Your task to perform on an android device: See recent photos Image 0: 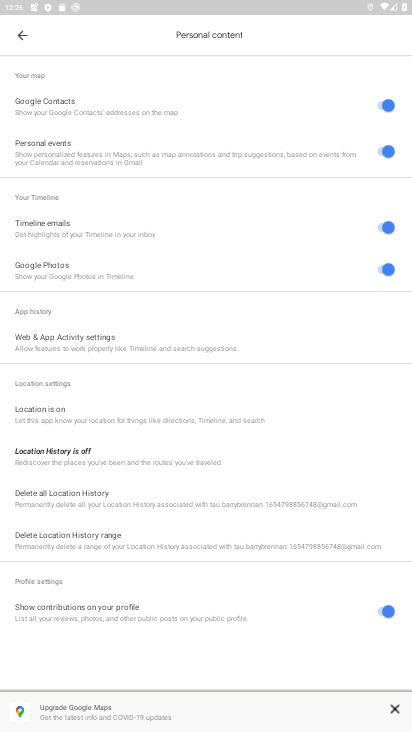
Step 0: press home button
Your task to perform on an android device: See recent photos Image 1: 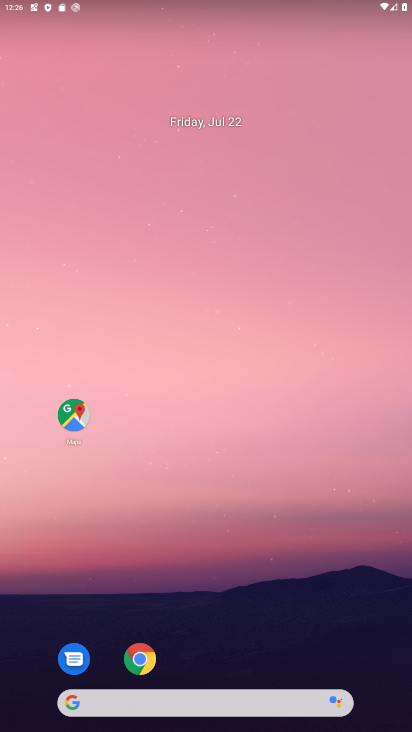
Step 1: drag from (176, 431) to (176, 301)
Your task to perform on an android device: See recent photos Image 2: 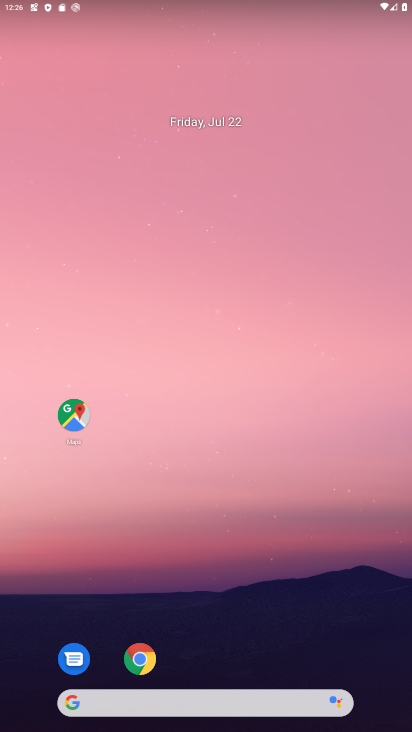
Step 2: drag from (198, 595) to (194, 154)
Your task to perform on an android device: See recent photos Image 3: 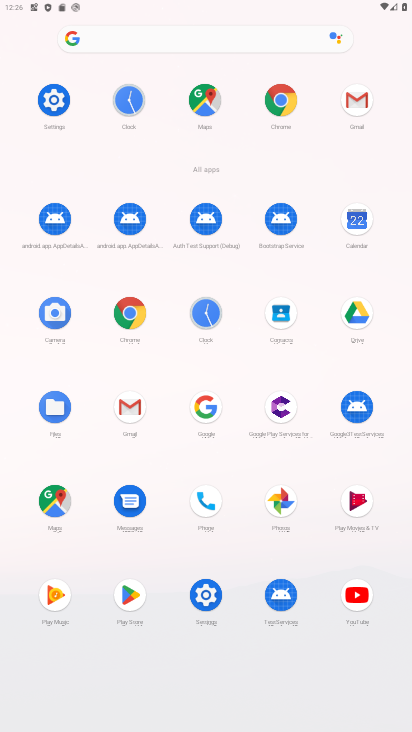
Step 3: click (285, 505)
Your task to perform on an android device: See recent photos Image 4: 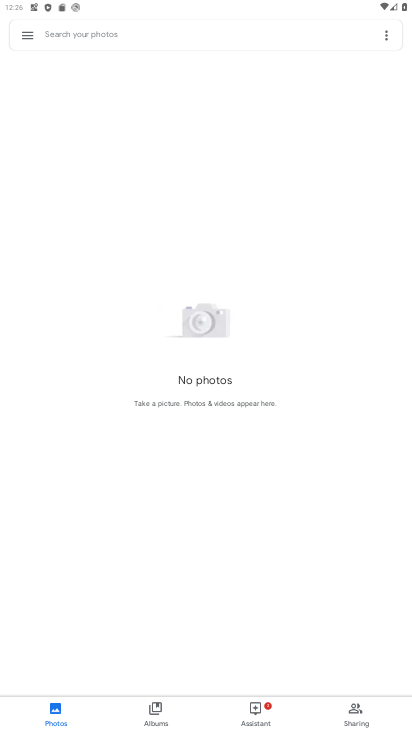
Step 4: task complete